Your task to perform on an android device: toggle wifi Image 0: 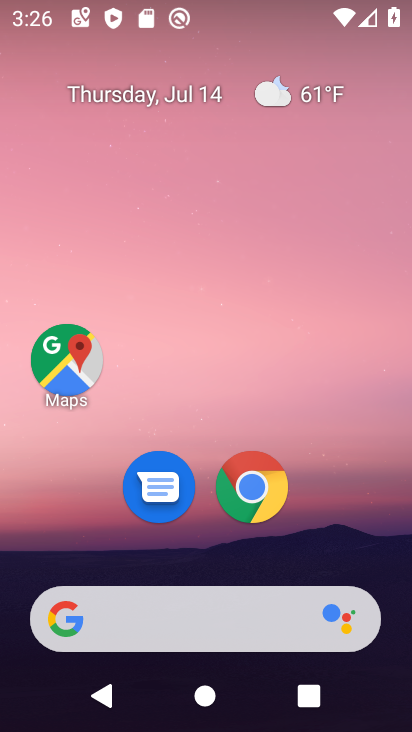
Step 0: drag from (191, 63) to (258, 522)
Your task to perform on an android device: toggle wifi Image 1: 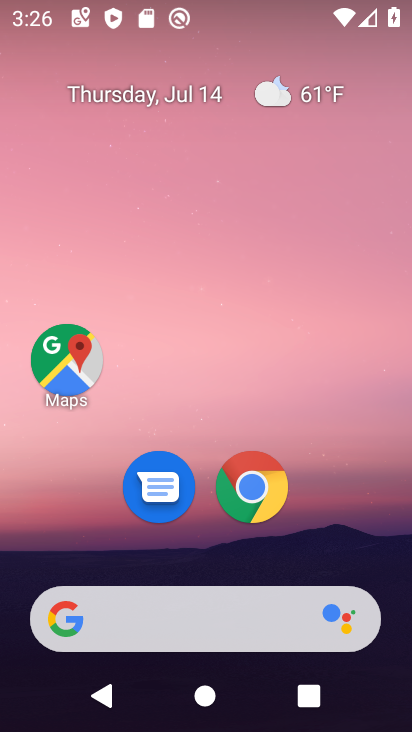
Step 1: drag from (94, 7) to (153, 542)
Your task to perform on an android device: toggle wifi Image 2: 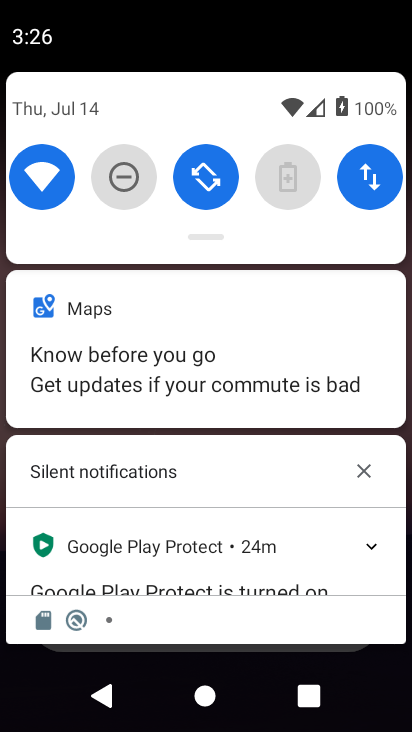
Step 2: click (53, 185)
Your task to perform on an android device: toggle wifi Image 3: 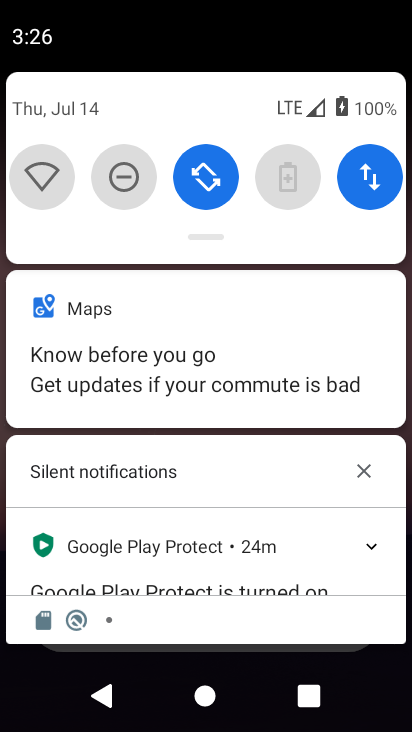
Step 3: task complete